Your task to perform on an android device: toggle priority inbox in the gmail app Image 0: 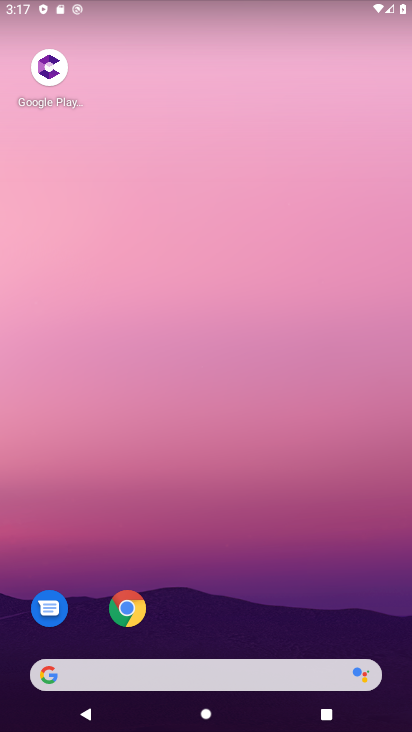
Step 0: drag from (206, 653) to (325, 181)
Your task to perform on an android device: toggle priority inbox in the gmail app Image 1: 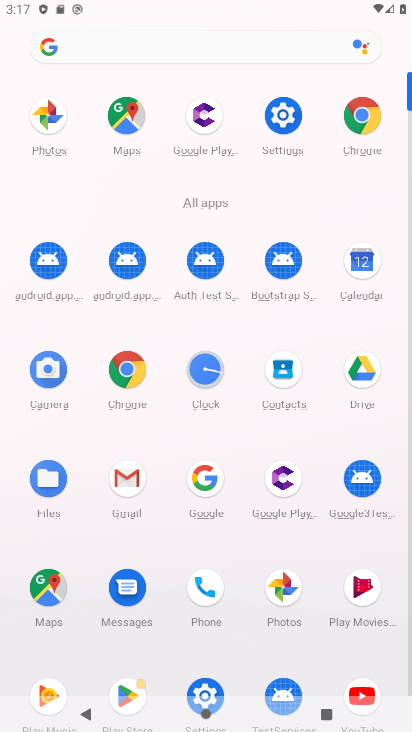
Step 1: click (130, 467)
Your task to perform on an android device: toggle priority inbox in the gmail app Image 2: 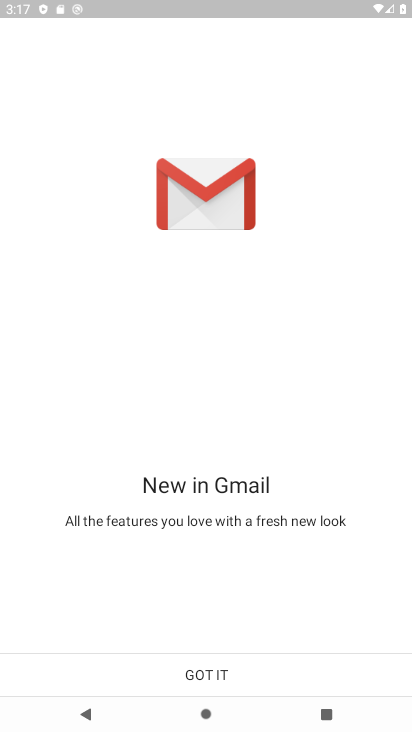
Step 2: click (200, 664)
Your task to perform on an android device: toggle priority inbox in the gmail app Image 3: 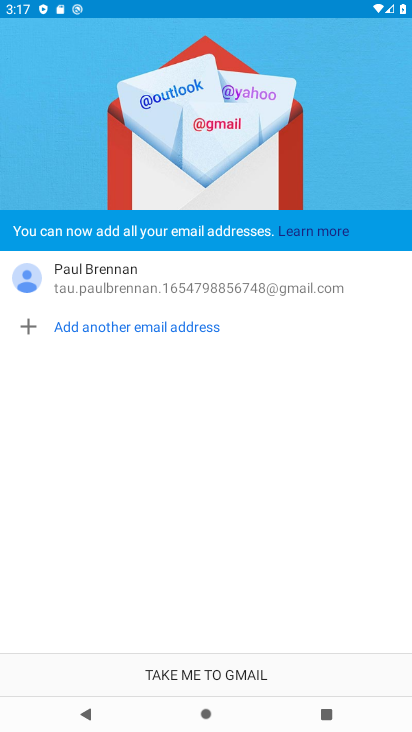
Step 3: click (200, 664)
Your task to perform on an android device: toggle priority inbox in the gmail app Image 4: 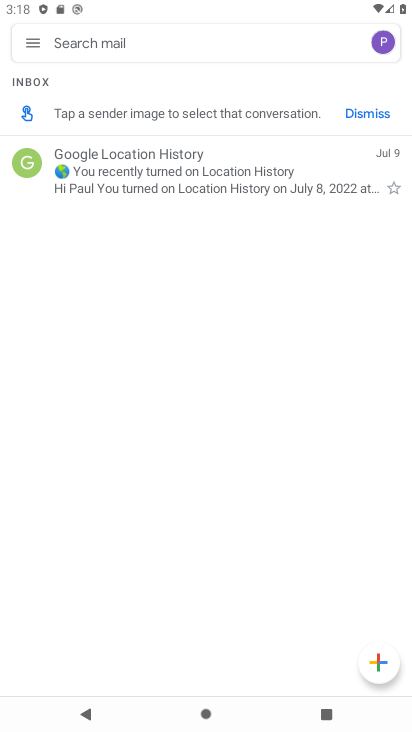
Step 4: click (29, 43)
Your task to perform on an android device: toggle priority inbox in the gmail app Image 5: 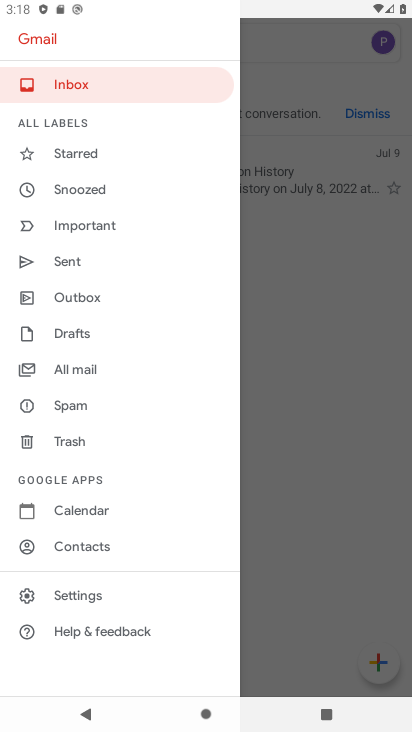
Step 5: drag from (80, 599) to (140, 306)
Your task to perform on an android device: toggle priority inbox in the gmail app Image 6: 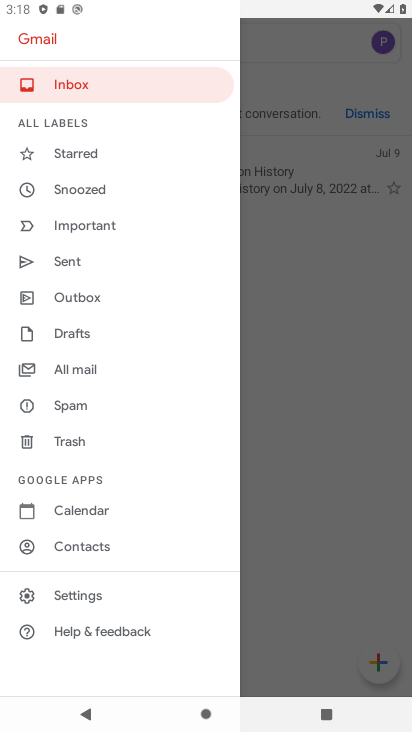
Step 6: click (40, 606)
Your task to perform on an android device: toggle priority inbox in the gmail app Image 7: 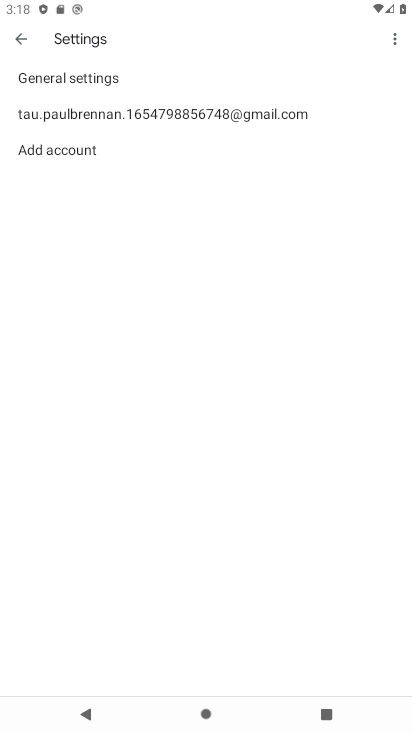
Step 7: click (221, 122)
Your task to perform on an android device: toggle priority inbox in the gmail app Image 8: 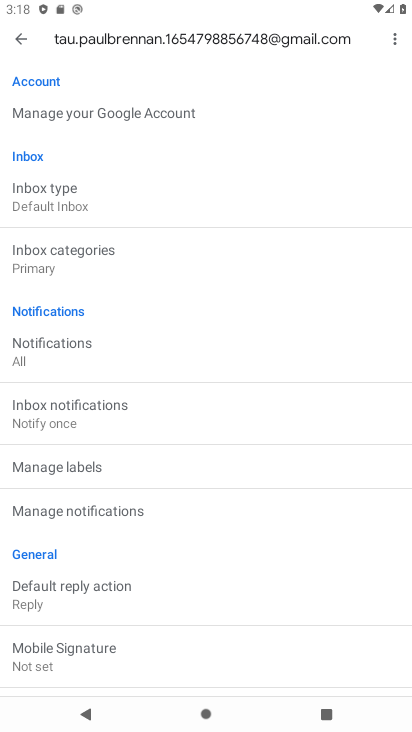
Step 8: click (97, 201)
Your task to perform on an android device: toggle priority inbox in the gmail app Image 9: 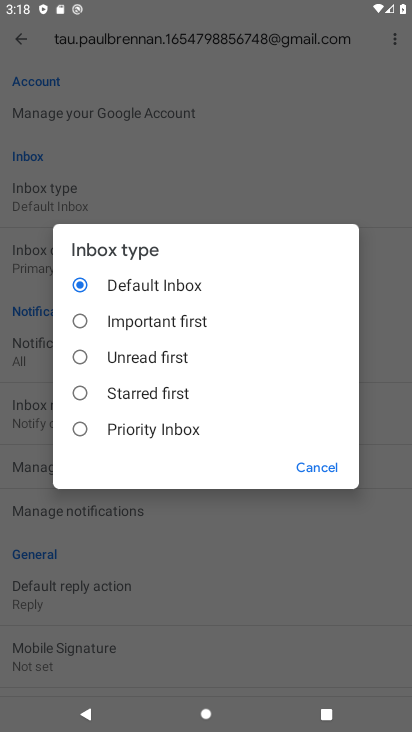
Step 9: task complete